Your task to perform on an android device: What is the news today? Image 0: 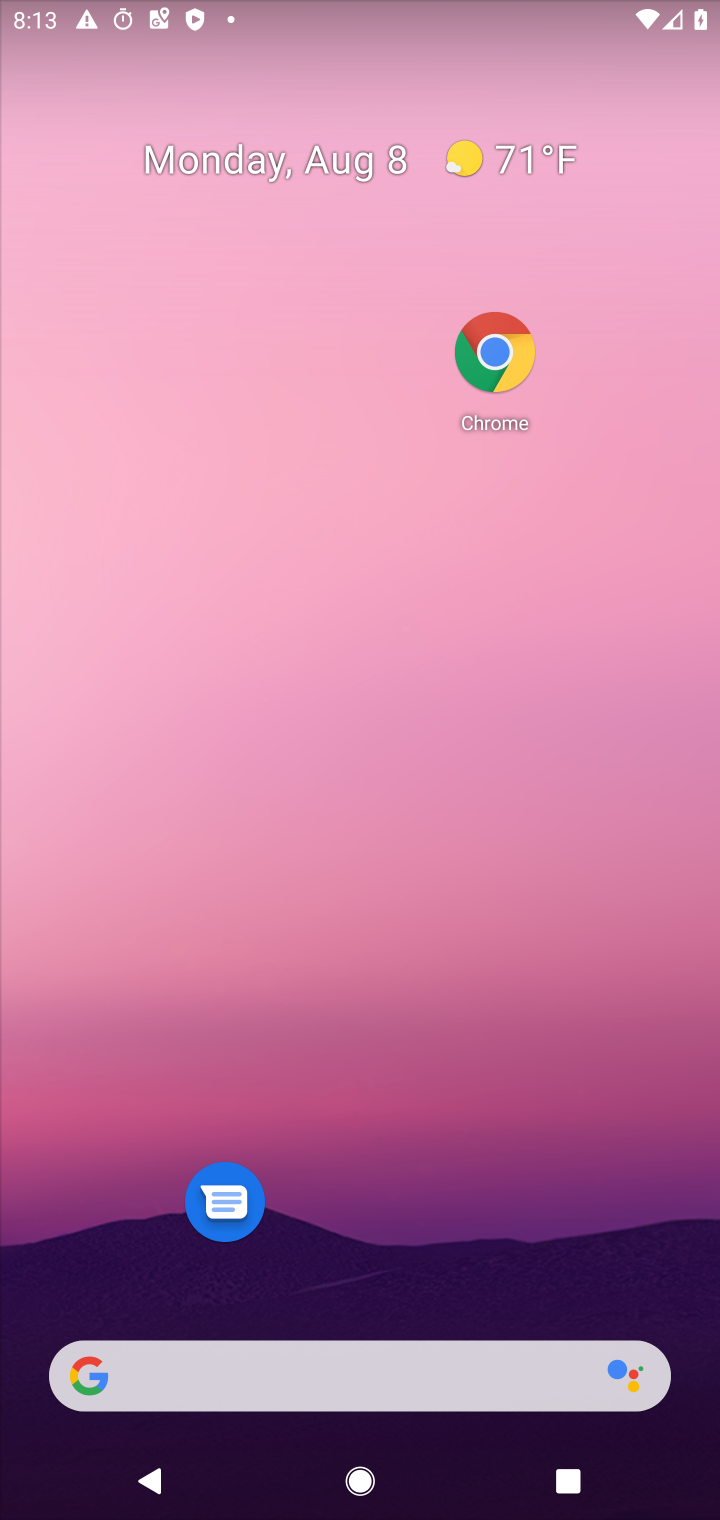
Step 0: drag from (397, 1352) to (643, 281)
Your task to perform on an android device: What is the news today? Image 1: 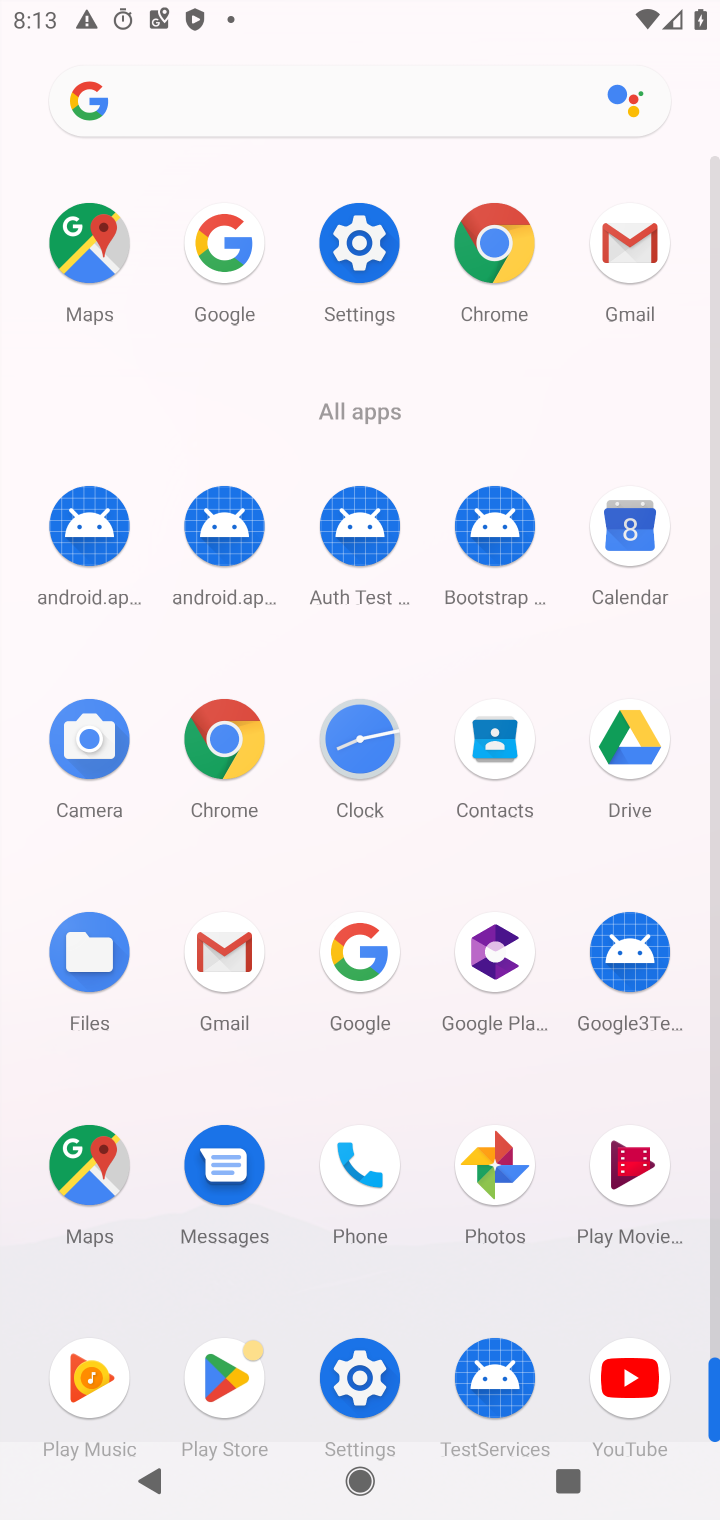
Step 1: click (362, 1006)
Your task to perform on an android device: What is the news today? Image 2: 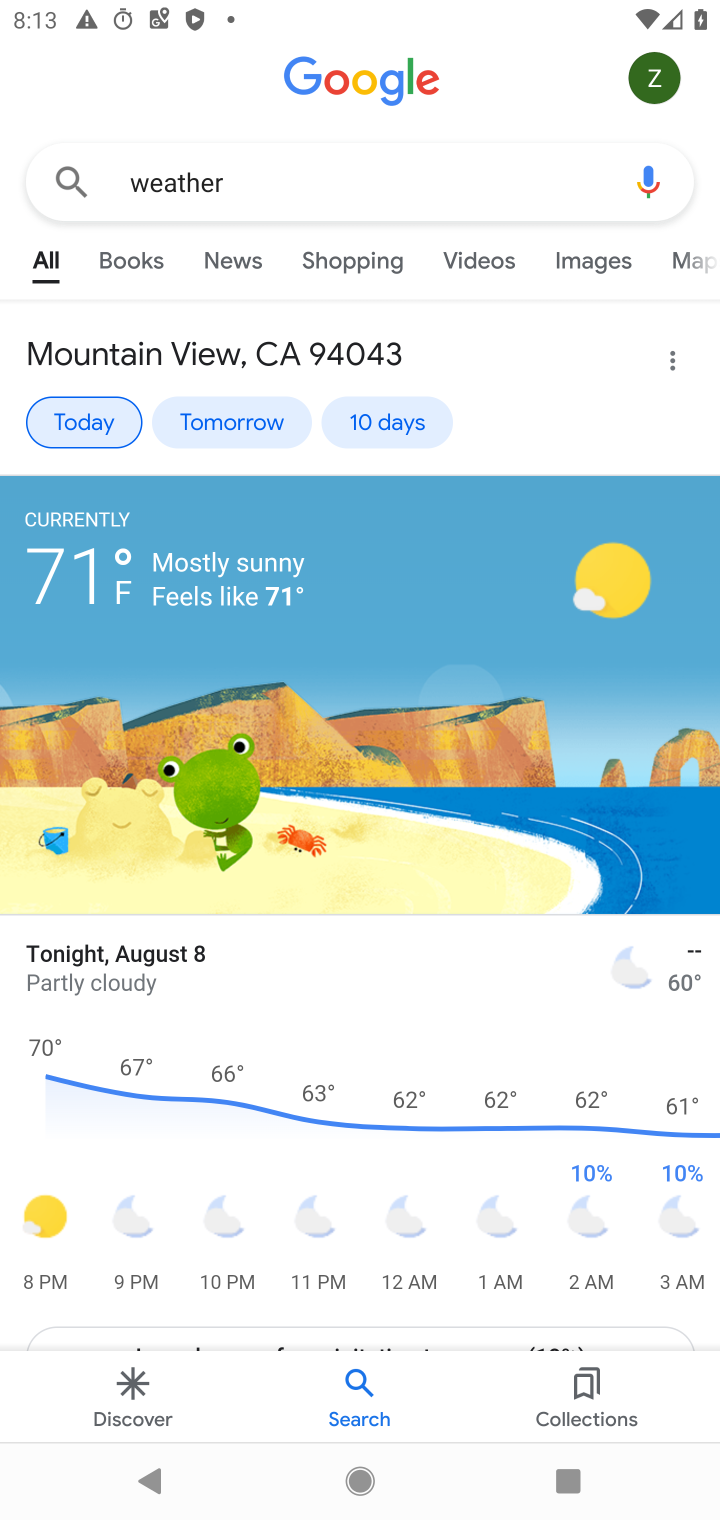
Step 2: click (453, 197)
Your task to perform on an android device: What is the news today? Image 3: 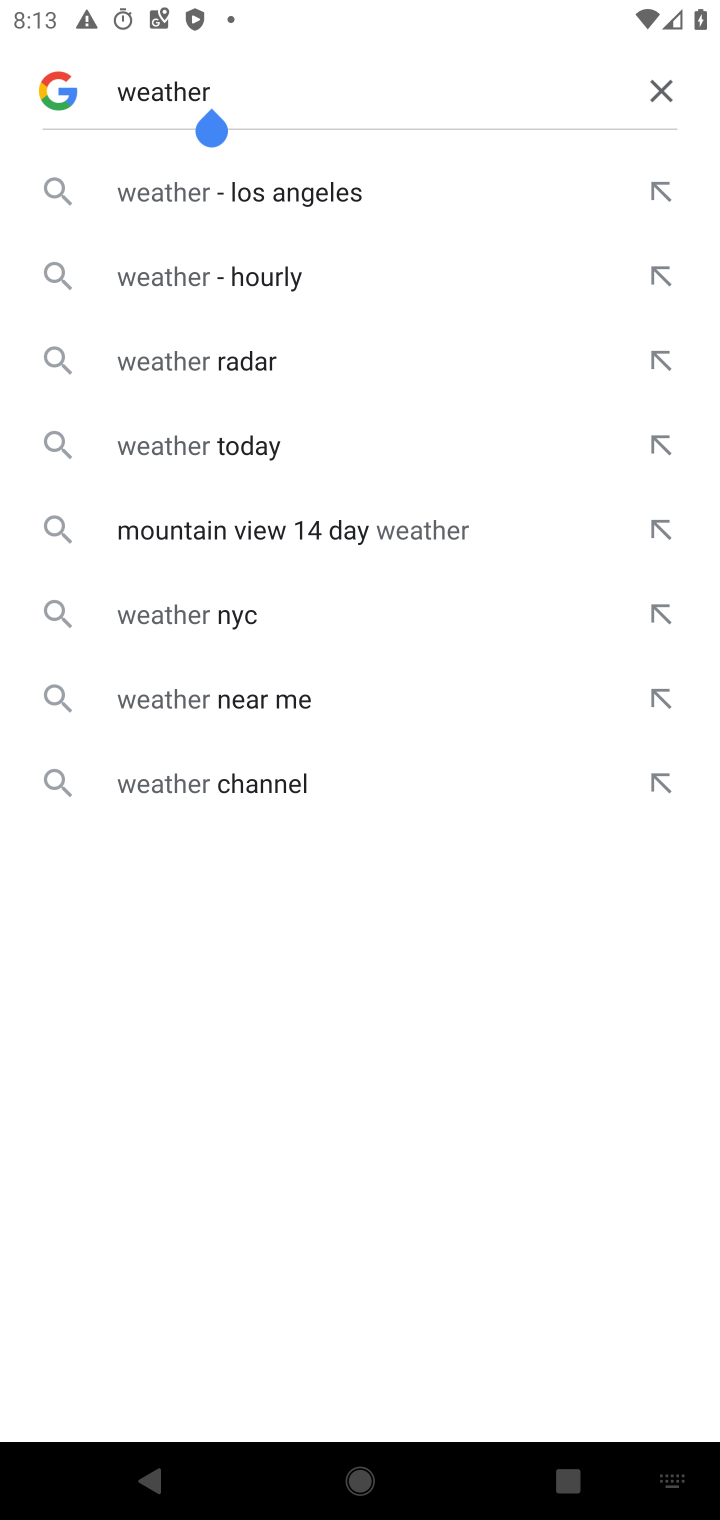
Step 3: click (674, 101)
Your task to perform on an android device: What is the news today? Image 4: 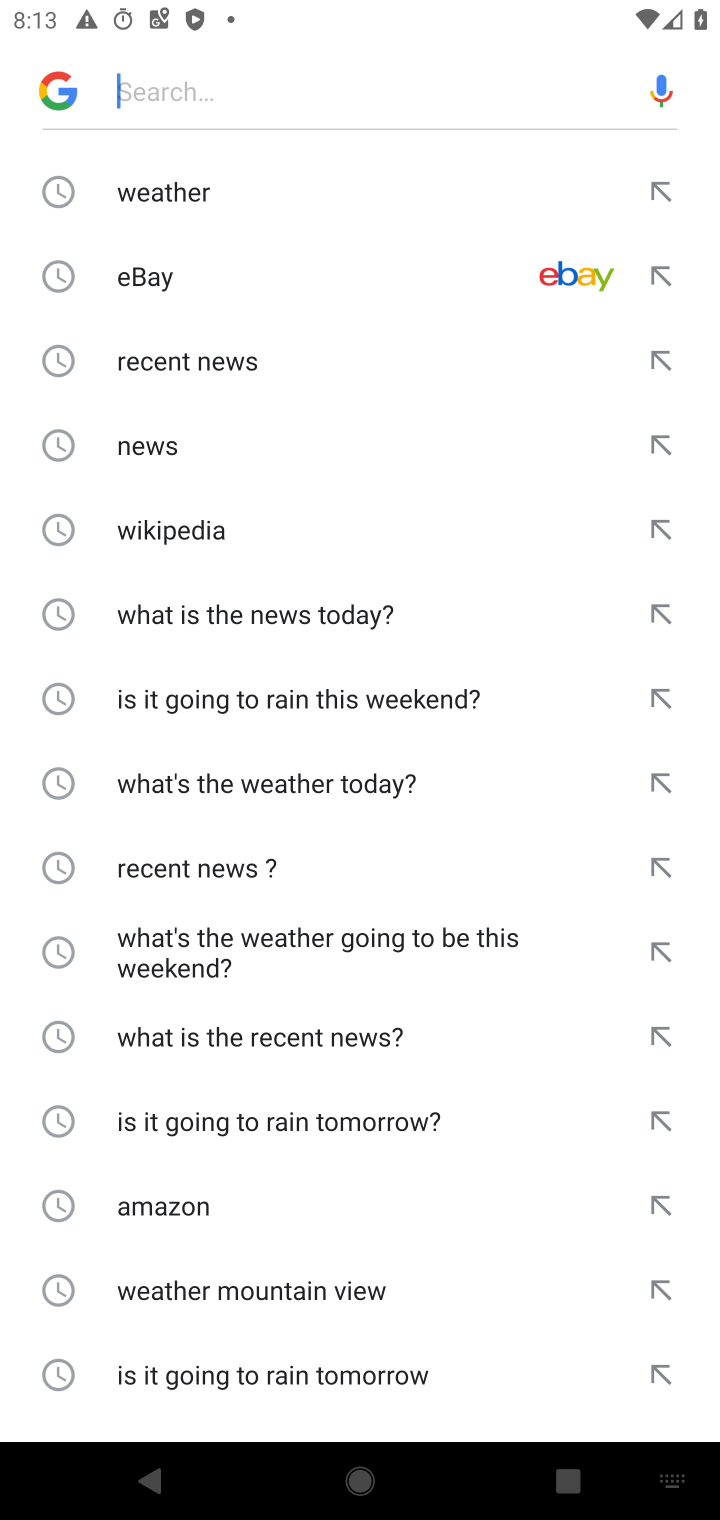
Step 4: click (194, 450)
Your task to perform on an android device: What is the news today? Image 5: 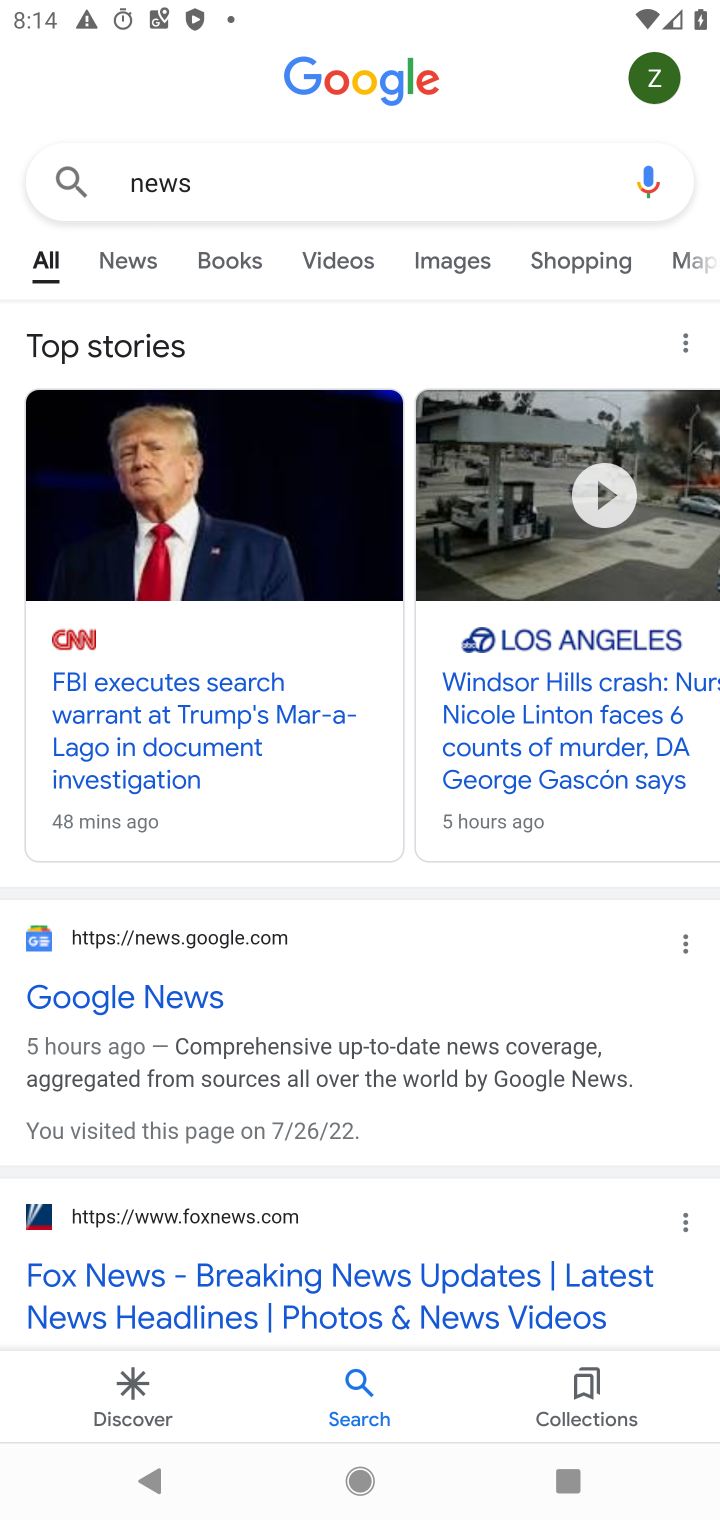
Step 5: task complete